Your task to perform on an android device: Open notification settings Image 0: 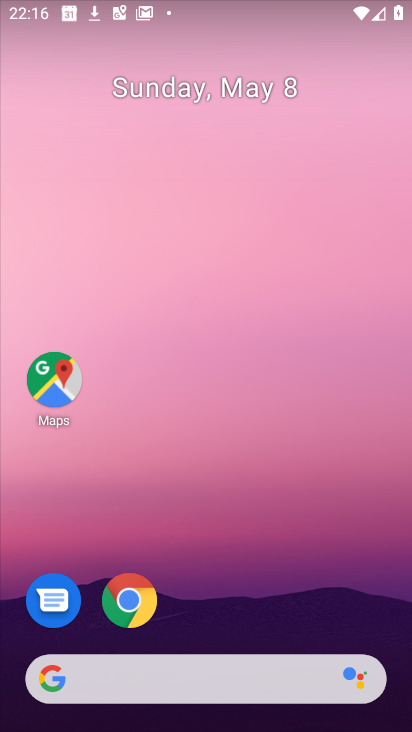
Step 0: drag from (256, 708) to (248, 233)
Your task to perform on an android device: Open notification settings Image 1: 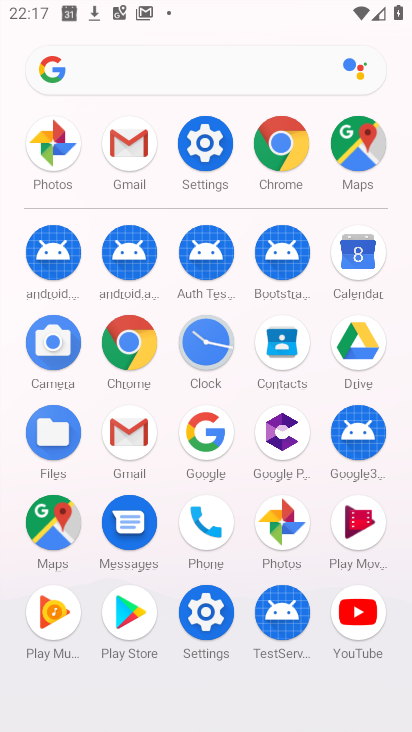
Step 1: click (196, 132)
Your task to perform on an android device: Open notification settings Image 2: 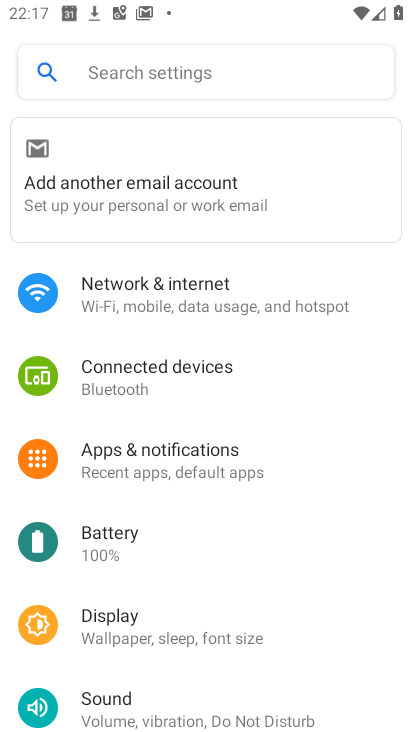
Step 2: click (138, 75)
Your task to perform on an android device: Open notification settings Image 3: 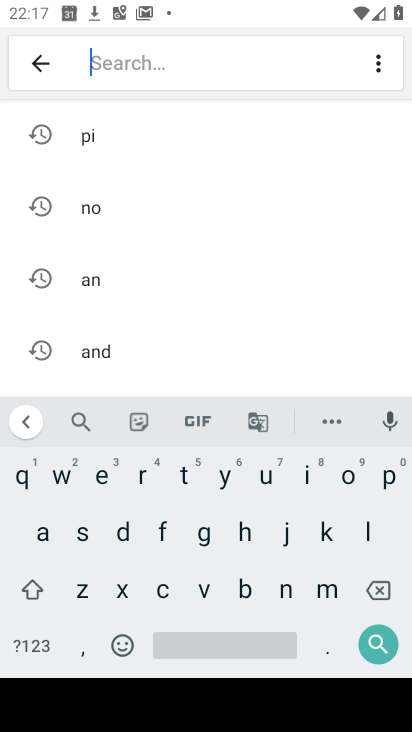
Step 3: click (113, 210)
Your task to perform on an android device: Open notification settings Image 4: 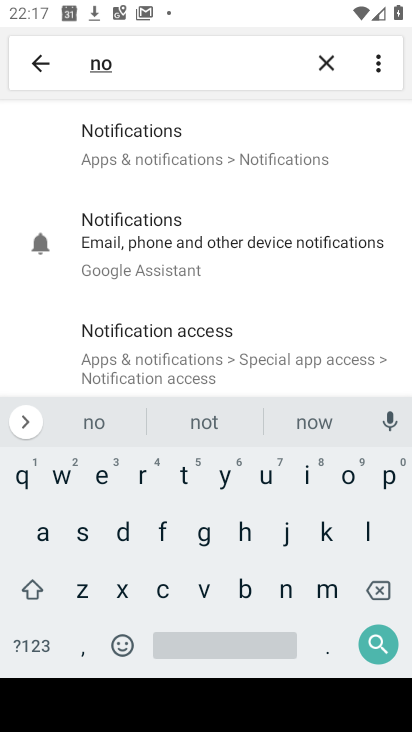
Step 4: click (182, 144)
Your task to perform on an android device: Open notification settings Image 5: 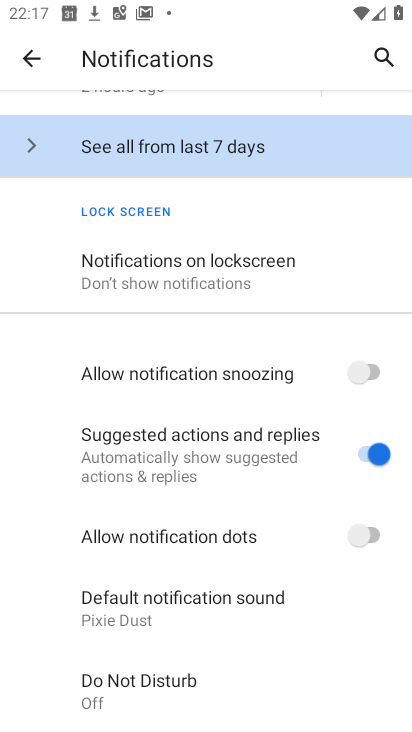
Step 5: click (207, 261)
Your task to perform on an android device: Open notification settings Image 6: 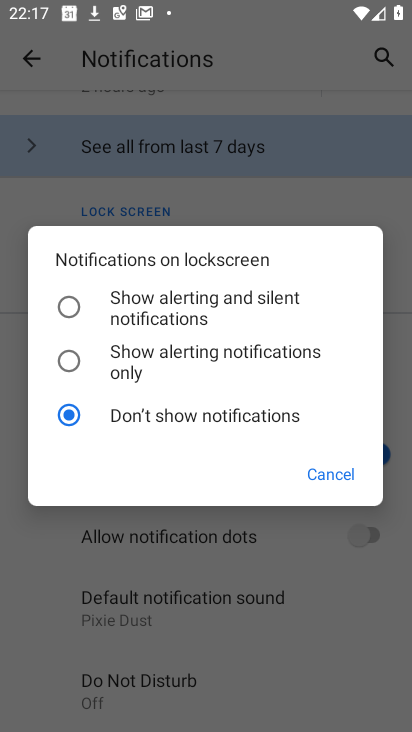
Step 6: task complete